Your task to perform on an android device: Go to notification settings Image 0: 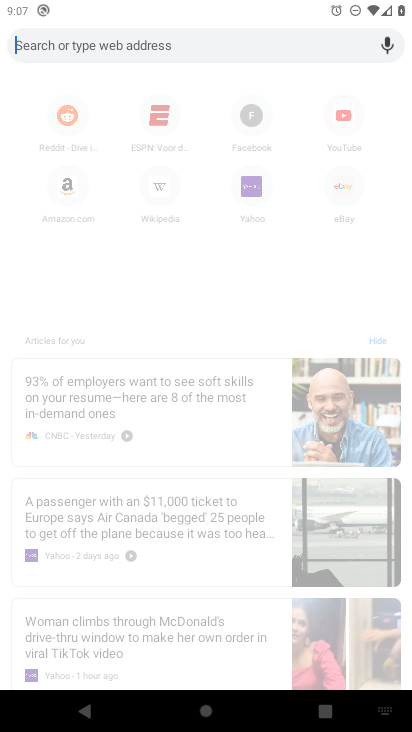
Step 0: press home button
Your task to perform on an android device: Go to notification settings Image 1: 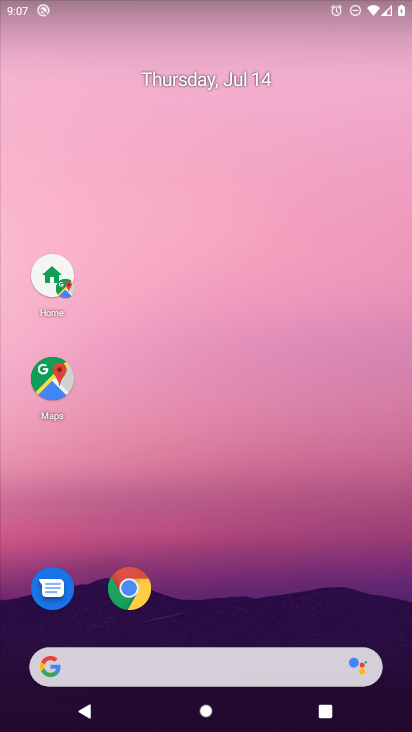
Step 1: drag from (30, 688) to (272, 84)
Your task to perform on an android device: Go to notification settings Image 2: 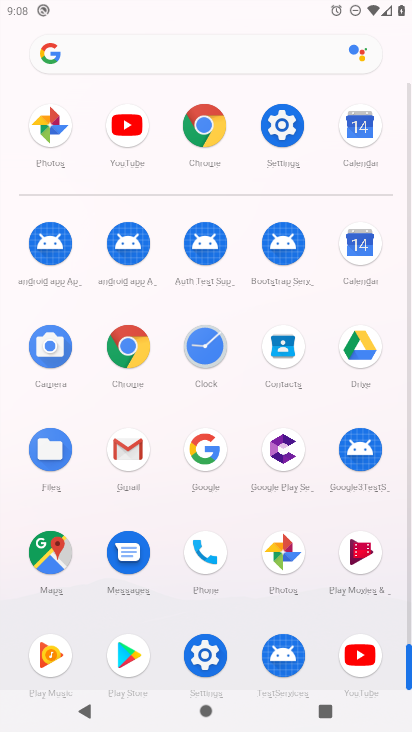
Step 2: click (195, 666)
Your task to perform on an android device: Go to notification settings Image 3: 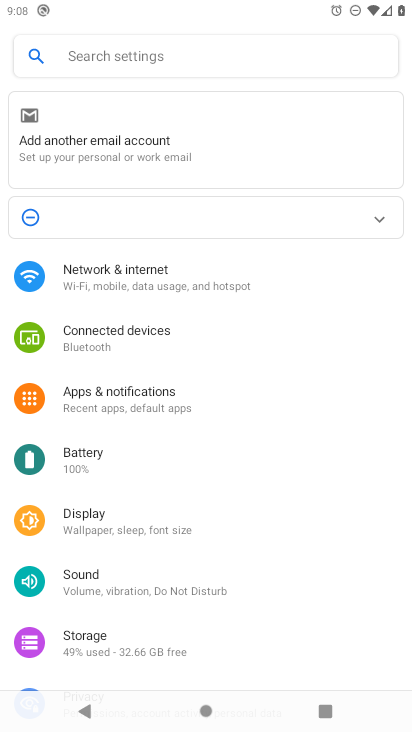
Step 3: click (181, 401)
Your task to perform on an android device: Go to notification settings Image 4: 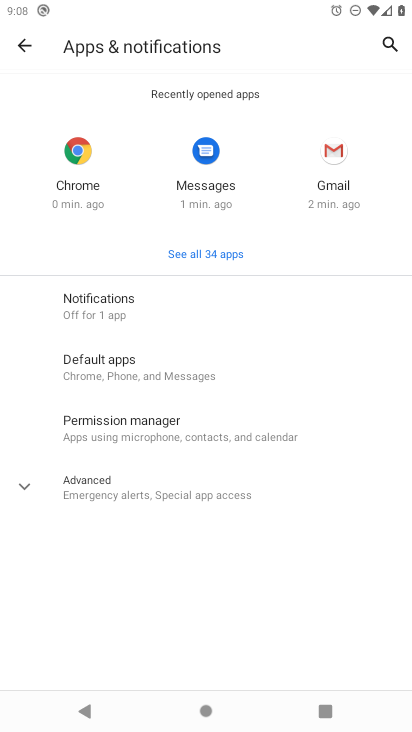
Step 4: task complete